Your task to perform on an android device: turn off improve location accuracy Image 0: 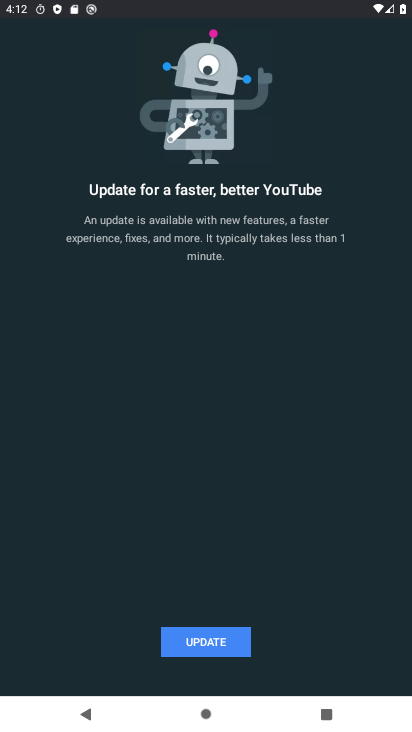
Step 0: press home button
Your task to perform on an android device: turn off improve location accuracy Image 1: 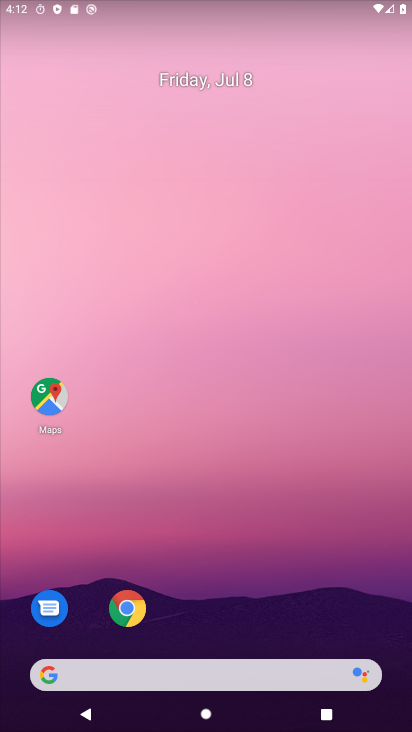
Step 1: drag from (236, 586) to (254, 72)
Your task to perform on an android device: turn off improve location accuracy Image 2: 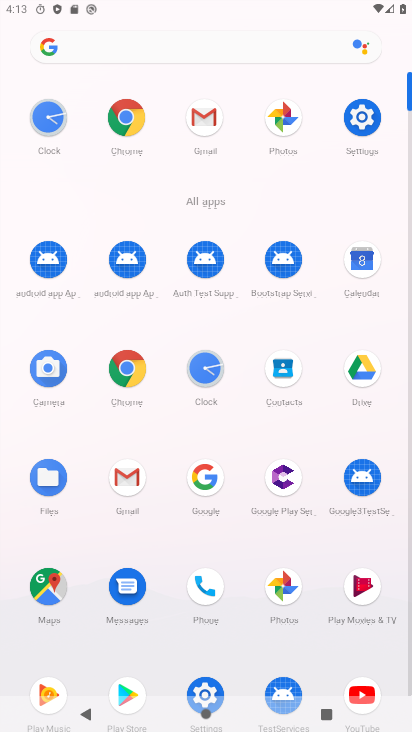
Step 2: click (359, 123)
Your task to perform on an android device: turn off improve location accuracy Image 3: 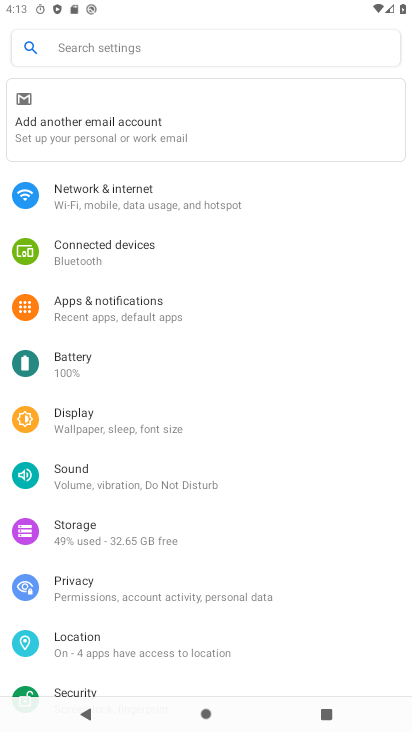
Step 3: click (131, 646)
Your task to perform on an android device: turn off improve location accuracy Image 4: 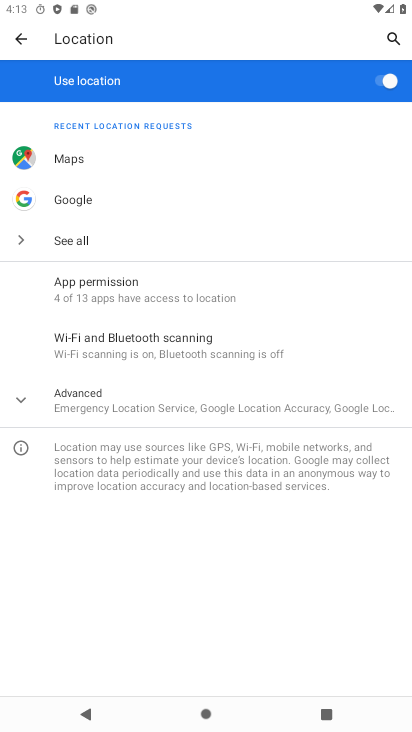
Step 4: click (27, 398)
Your task to perform on an android device: turn off improve location accuracy Image 5: 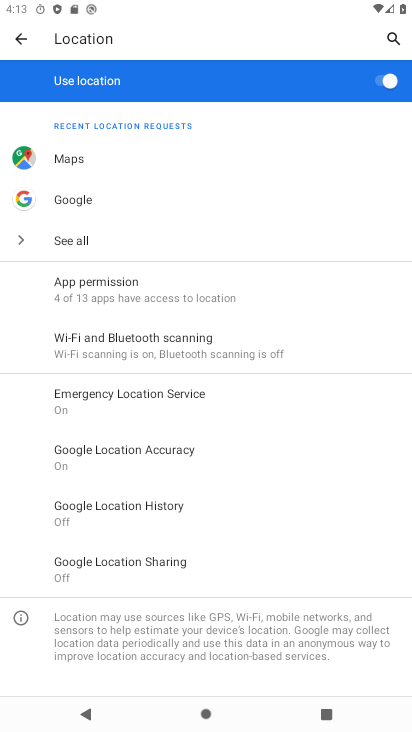
Step 5: click (164, 444)
Your task to perform on an android device: turn off improve location accuracy Image 6: 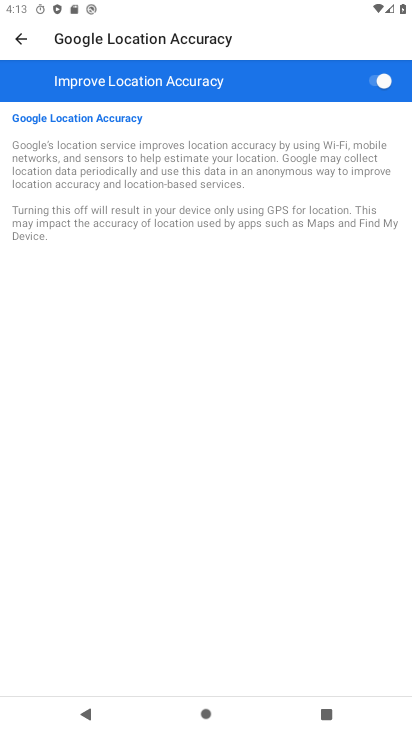
Step 6: click (389, 74)
Your task to perform on an android device: turn off improve location accuracy Image 7: 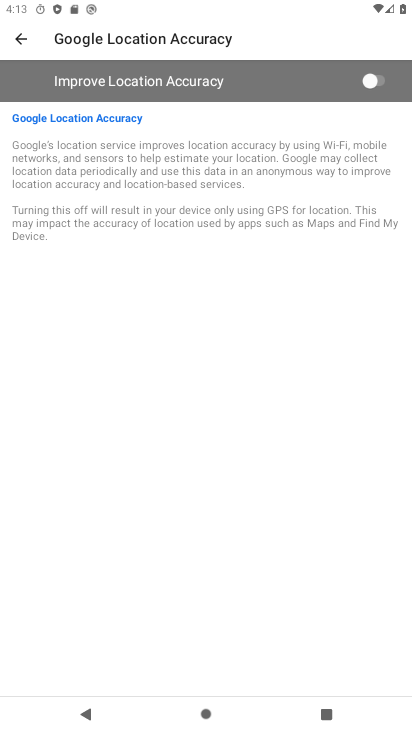
Step 7: task complete